Your task to perform on an android device: refresh tabs in the chrome app Image 0: 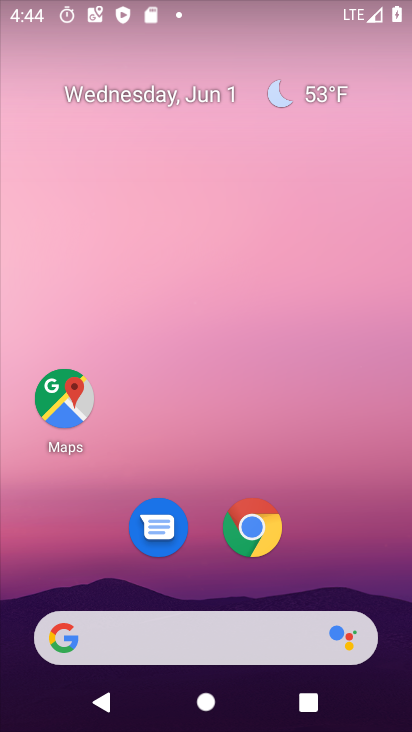
Step 0: drag from (322, 568) to (351, 86)
Your task to perform on an android device: refresh tabs in the chrome app Image 1: 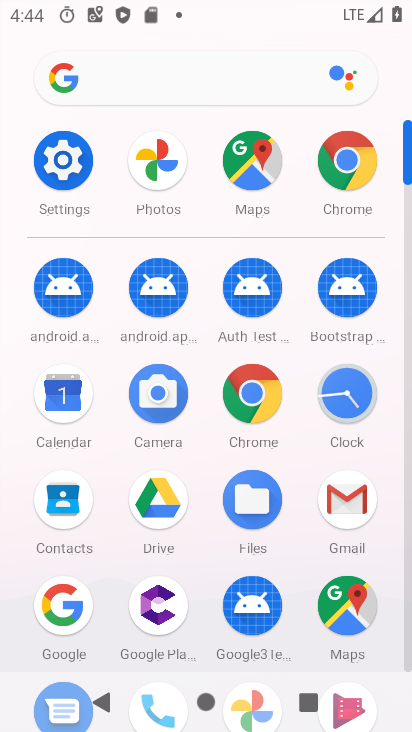
Step 1: click (252, 390)
Your task to perform on an android device: refresh tabs in the chrome app Image 2: 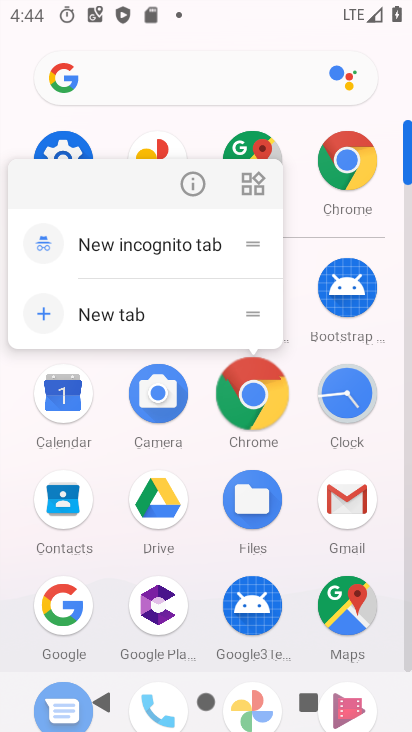
Step 2: click (252, 390)
Your task to perform on an android device: refresh tabs in the chrome app Image 3: 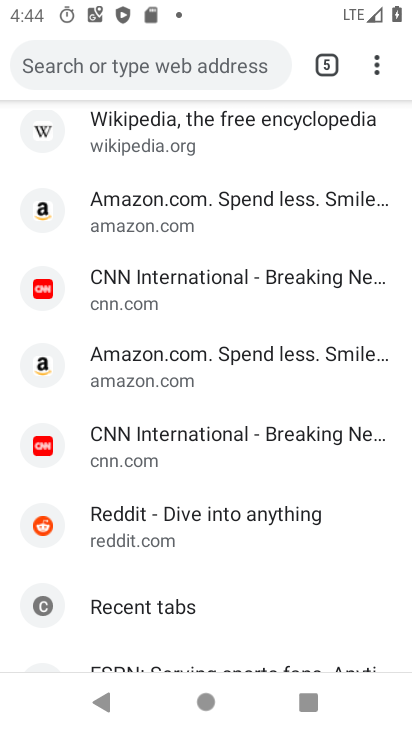
Step 3: click (372, 61)
Your task to perform on an android device: refresh tabs in the chrome app Image 4: 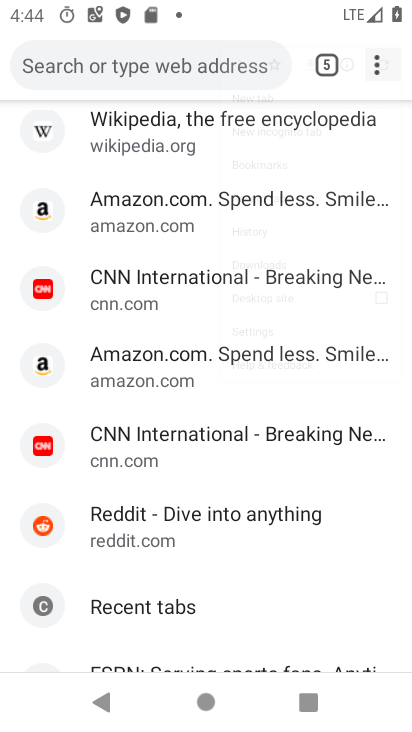
Step 4: click (381, 64)
Your task to perform on an android device: refresh tabs in the chrome app Image 5: 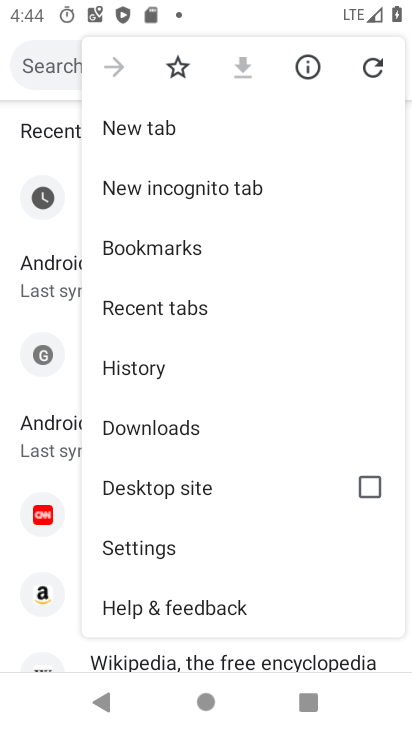
Step 5: click (370, 66)
Your task to perform on an android device: refresh tabs in the chrome app Image 6: 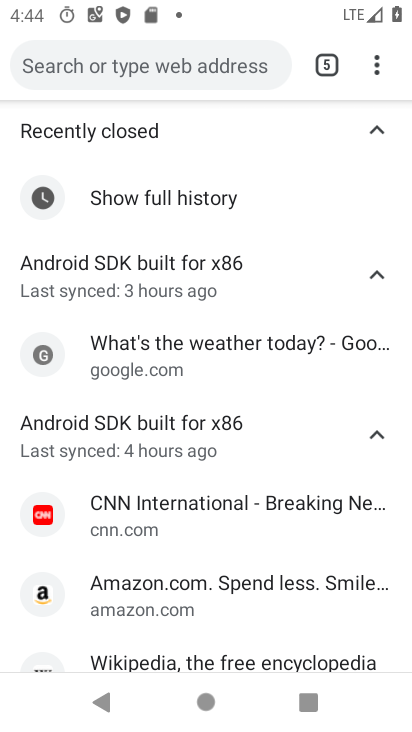
Step 6: task complete